Your task to perform on an android device: What's the weather today? Image 0: 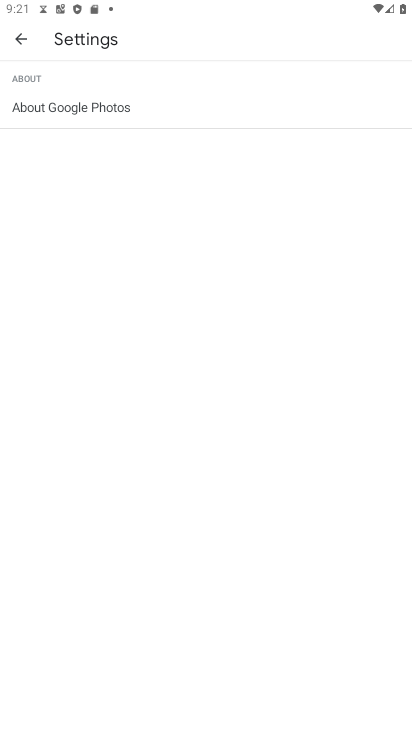
Step 0: press home button
Your task to perform on an android device: What's the weather today? Image 1: 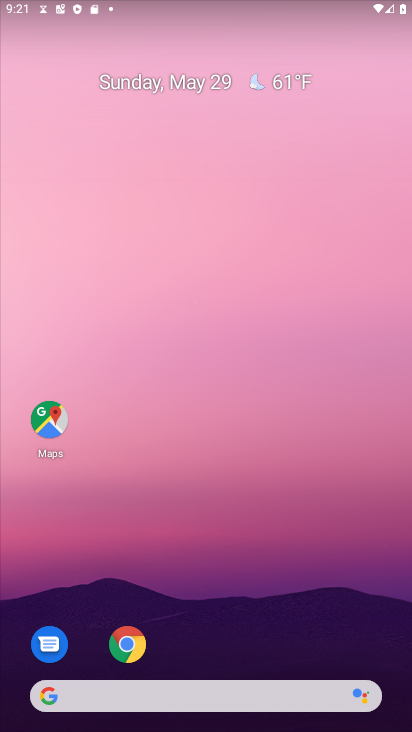
Step 1: click (272, 90)
Your task to perform on an android device: What's the weather today? Image 2: 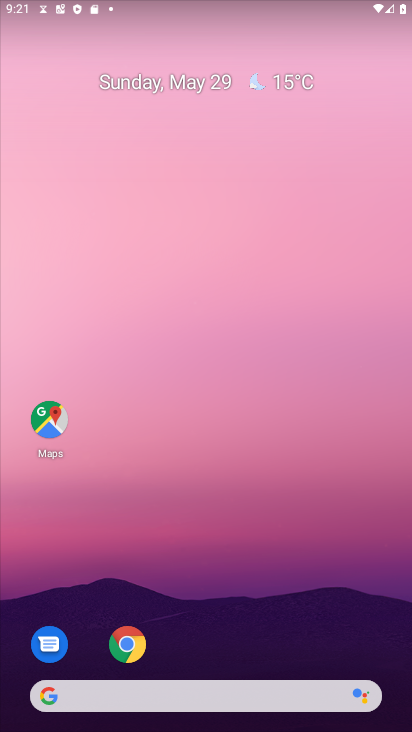
Step 2: click (269, 86)
Your task to perform on an android device: What's the weather today? Image 3: 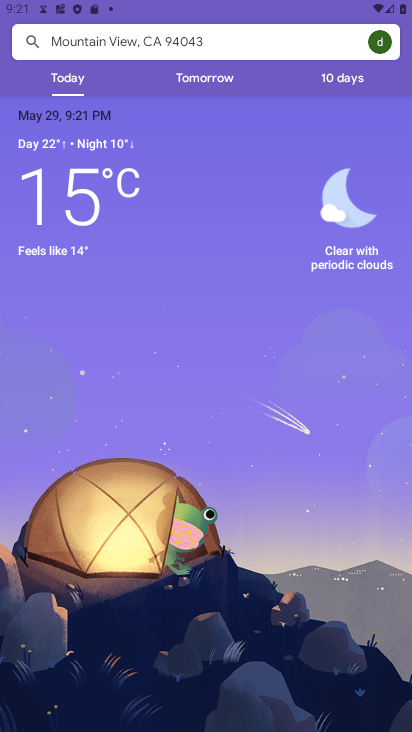
Step 3: task complete